Your task to perform on an android device: change the upload size in google photos Image 0: 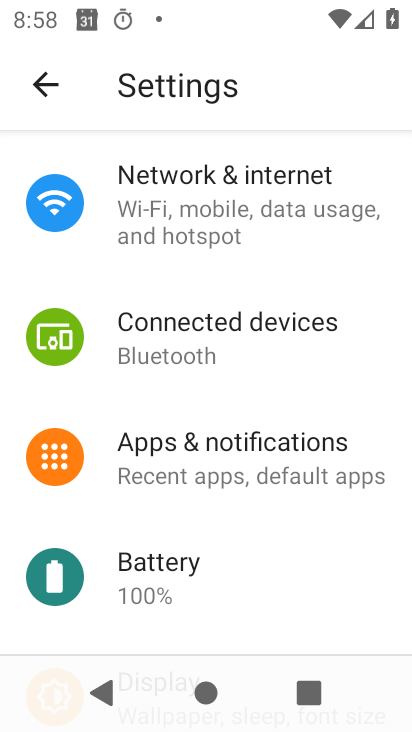
Step 0: press home button
Your task to perform on an android device: change the upload size in google photos Image 1: 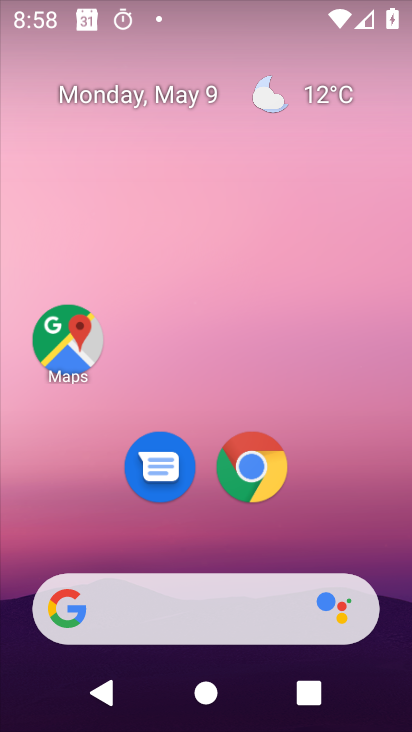
Step 1: drag from (347, 565) to (374, 3)
Your task to perform on an android device: change the upload size in google photos Image 2: 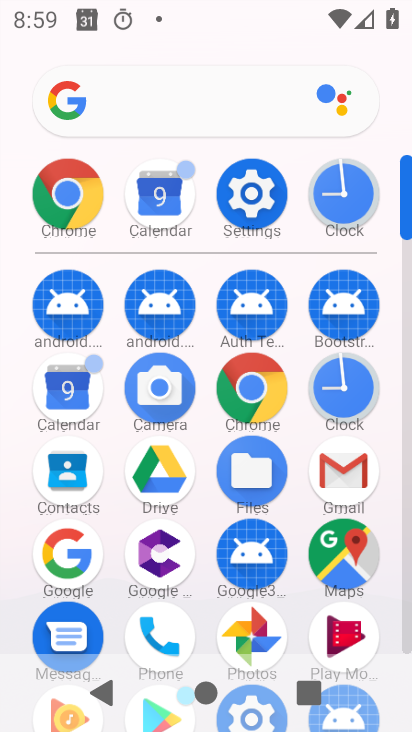
Step 2: click (245, 628)
Your task to perform on an android device: change the upload size in google photos Image 3: 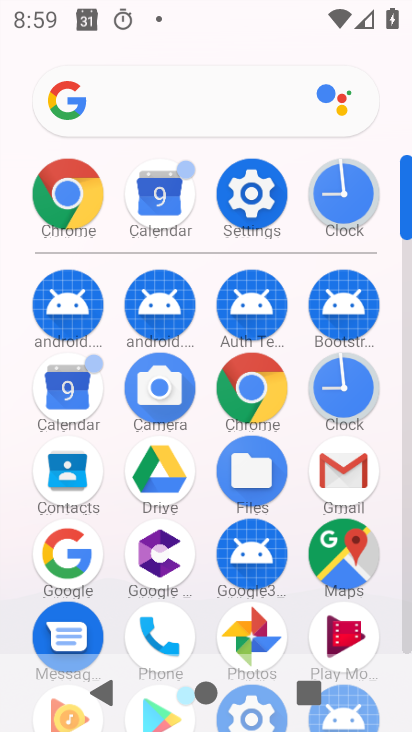
Step 3: click (245, 628)
Your task to perform on an android device: change the upload size in google photos Image 4: 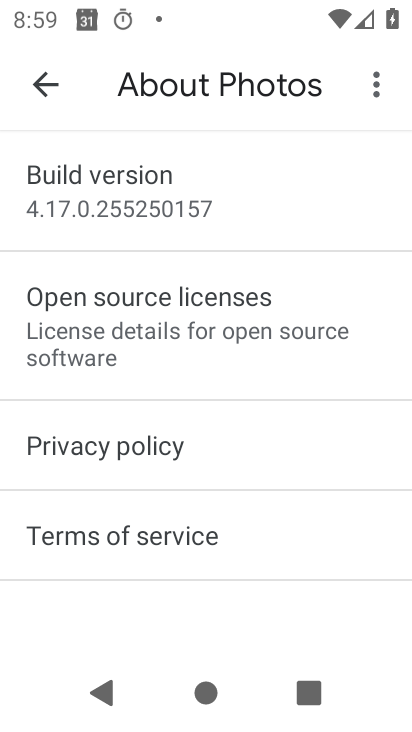
Step 4: click (48, 94)
Your task to perform on an android device: change the upload size in google photos Image 5: 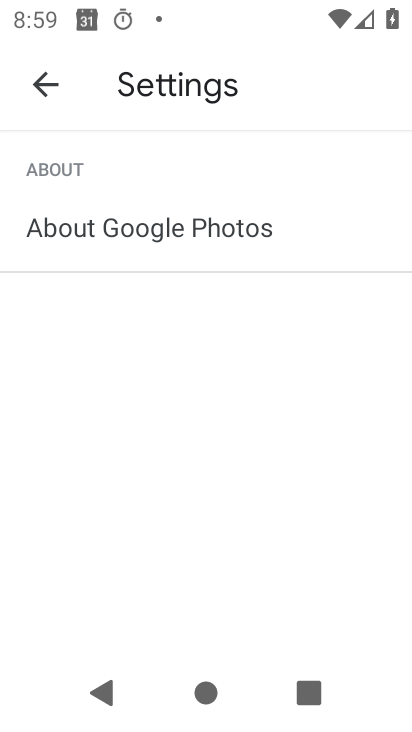
Step 5: click (48, 94)
Your task to perform on an android device: change the upload size in google photos Image 6: 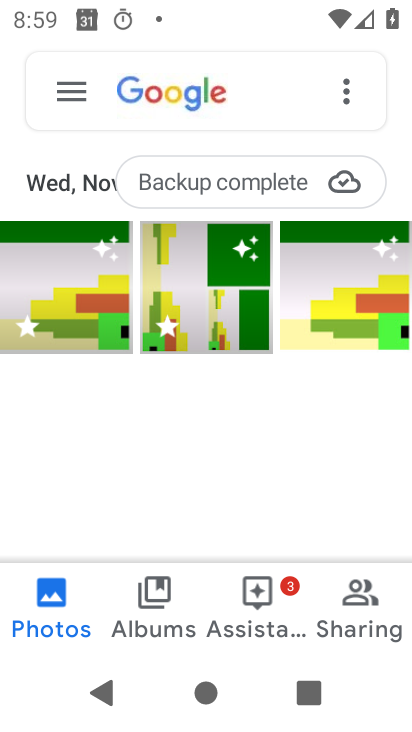
Step 6: click (74, 88)
Your task to perform on an android device: change the upload size in google photos Image 7: 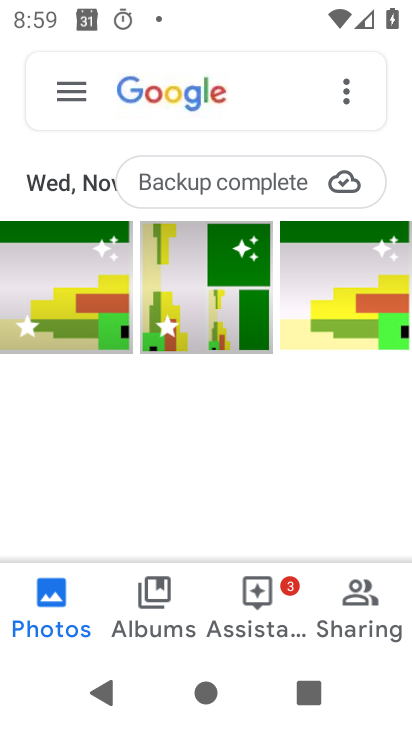
Step 7: click (78, 95)
Your task to perform on an android device: change the upload size in google photos Image 8: 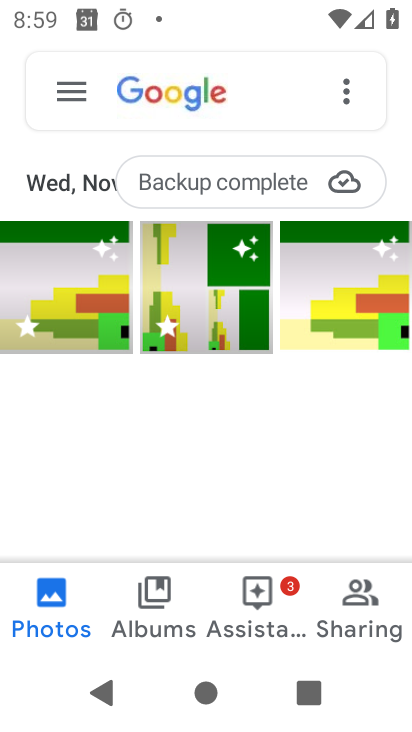
Step 8: click (78, 95)
Your task to perform on an android device: change the upload size in google photos Image 9: 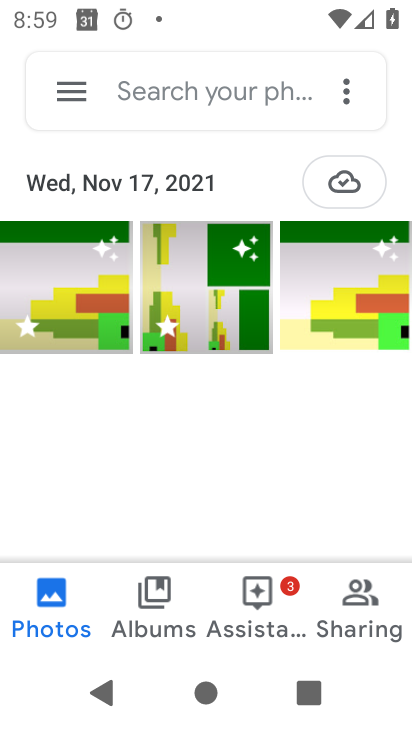
Step 9: click (67, 93)
Your task to perform on an android device: change the upload size in google photos Image 10: 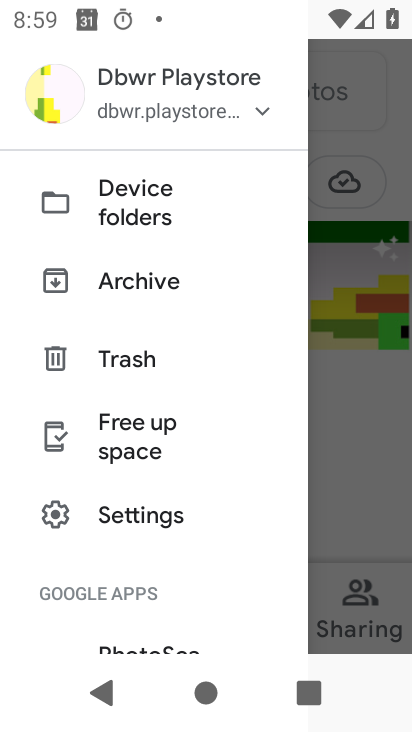
Step 10: click (136, 515)
Your task to perform on an android device: change the upload size in google photos Image 11: 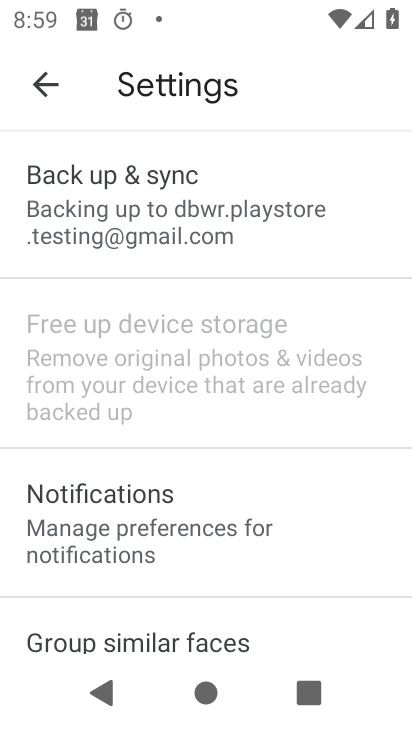
Step 11: click (136, 515)
Your task to perform on an android device: change the upload size in google photos Image 12: 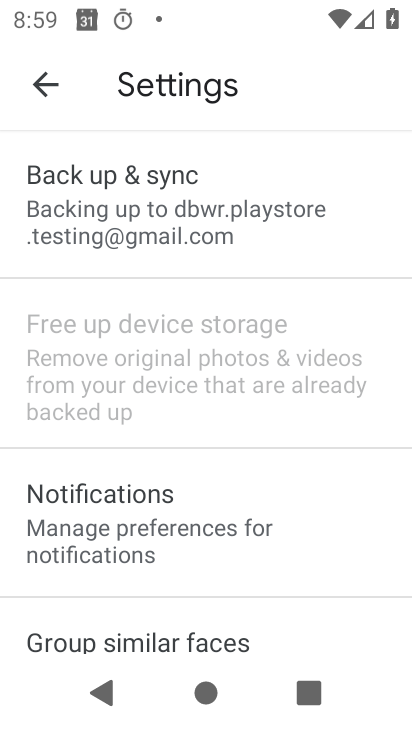
Step 12: click (123, 228)
Your task to perform on an android device: change the upload size in google photos Image 13: 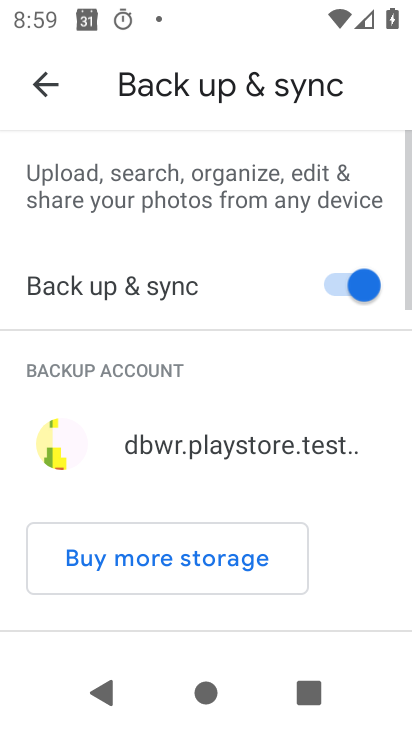
Step 13: drag from (166, 490) to (166, 168)
Your task to perform on an android device: change the upload size in google photos Image 14: 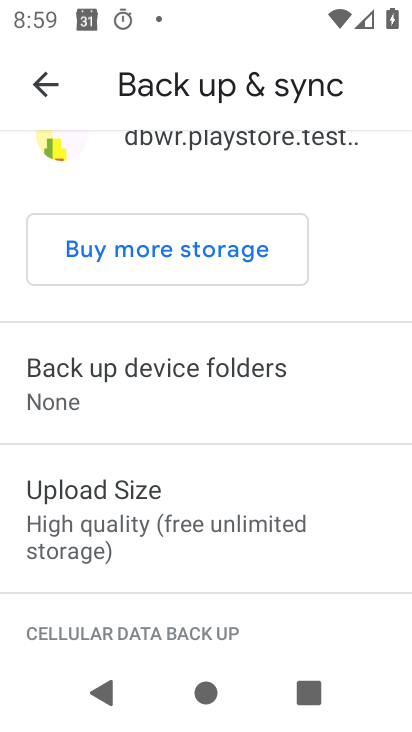
Step 14: click (87, 514)
Your task to perform on an android device: change the upload size in google photos Image 15: 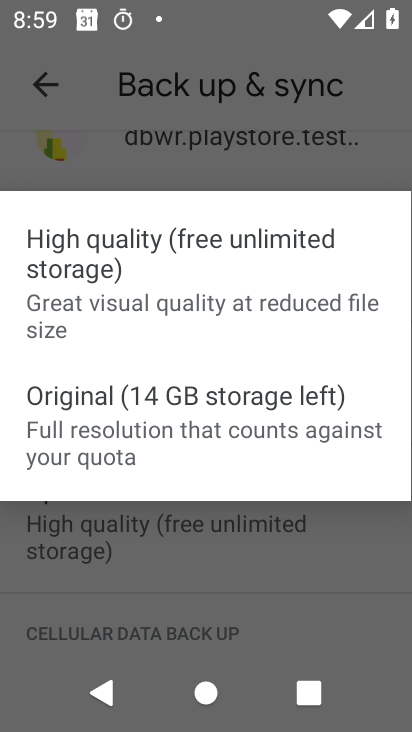
Step 15: click (74, 458)
Your task to perform on an android device: change the upload size in google photos Image 16: 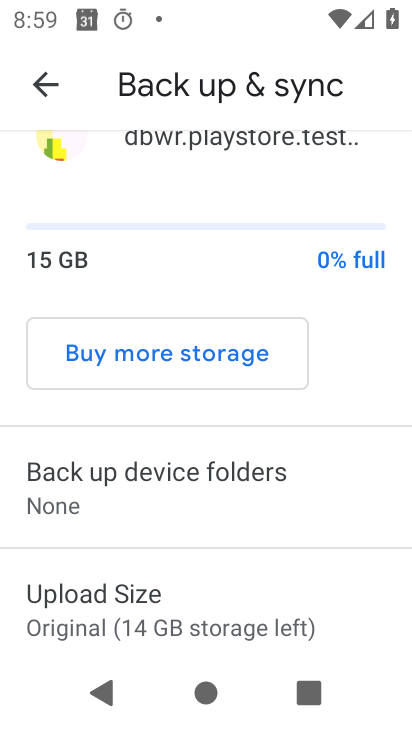
Step 16: task complete